Your task to perform on an android device: see tabs open on other devices in the chrome app Image 0: 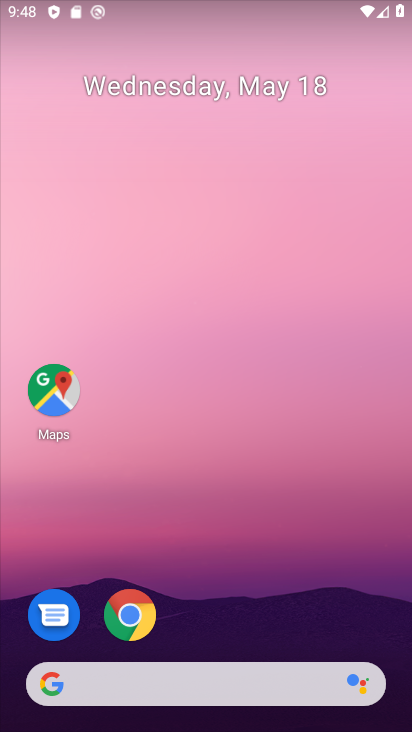
Step 0: click (117, 609)
Your task to perform on an android device: see tabs open on other devices in the chrome app Image 1: 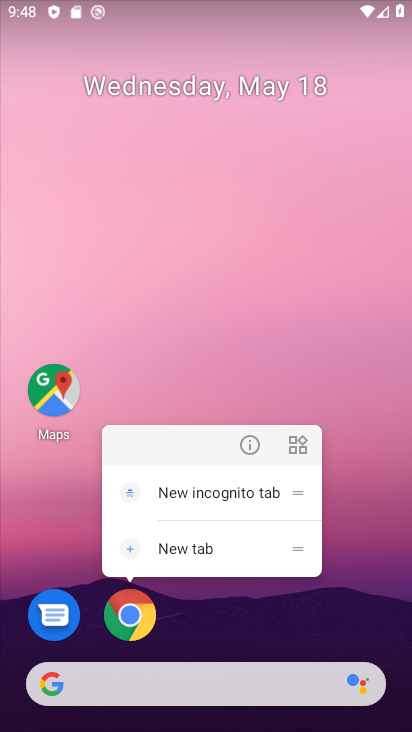
Step 1: click (123, 618)
Your task to perform on an android device: see tabs open on other devices in the chrome app Image 2: 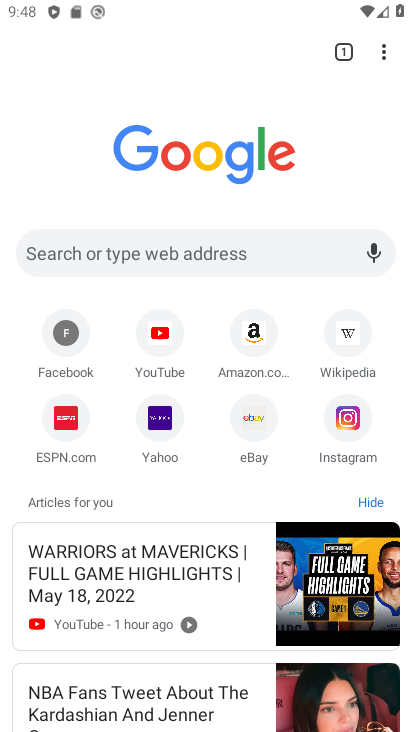
Step 2: click (346, 55)
Your task to perform on an android device: see tabs open on other devices in the chrome app Image 3: 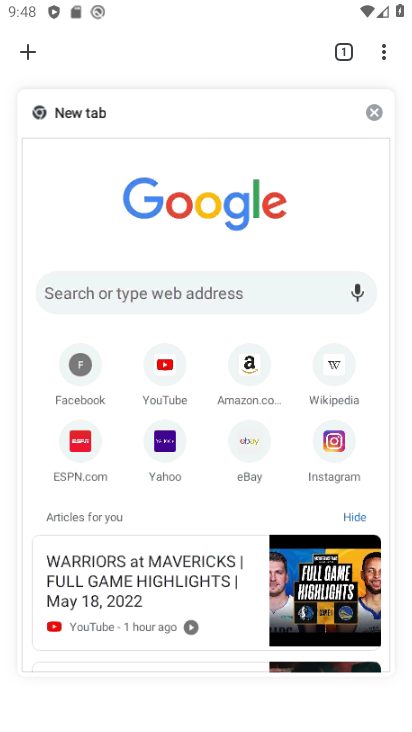
Step 3: task complete